Your task to perform on an android device: Is it going to rain tomorrow? Image 0: 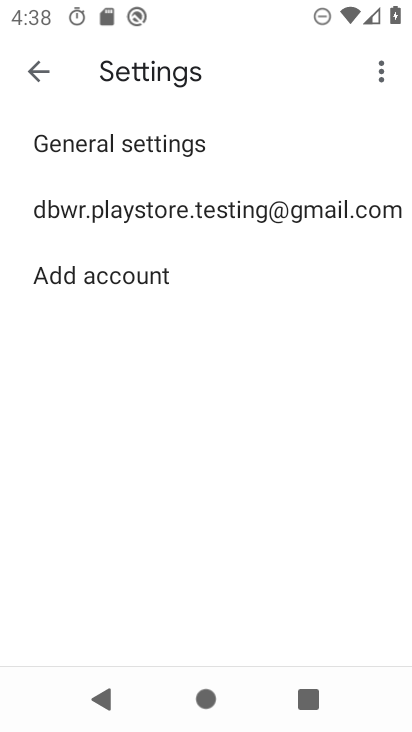
Step 0: press back button
Your task to perform on an android device: Is it going to rain tomorrow? Image 1: 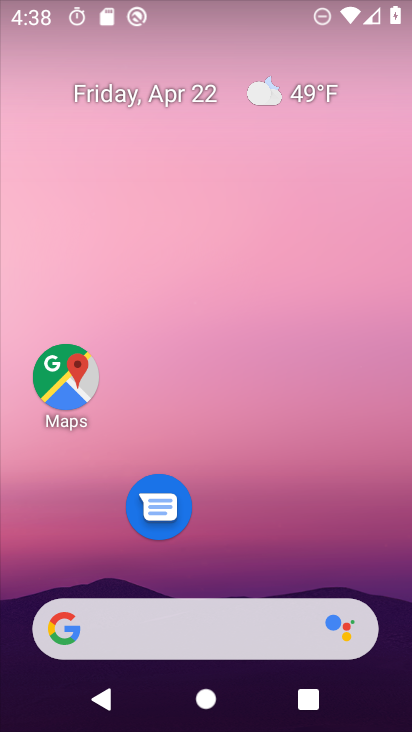
Step 1: click (271, 93)
Your task to perform on an android device: Is it going to rain tomorrow? Image 2: 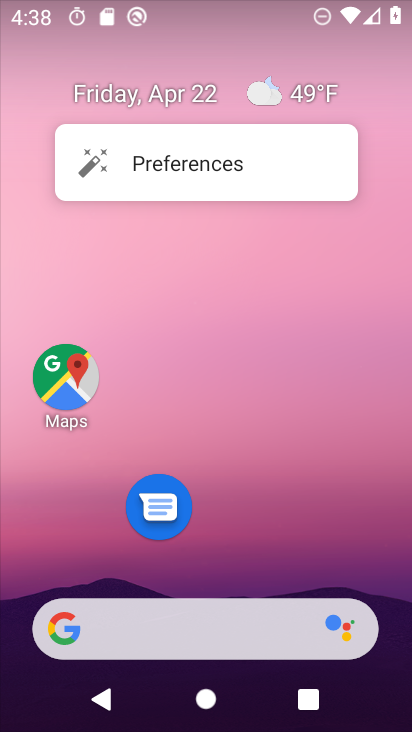
Step 2: click (266, 92)
Your task to perform on an android device: Is it going to rain tomorrow? Image 3: 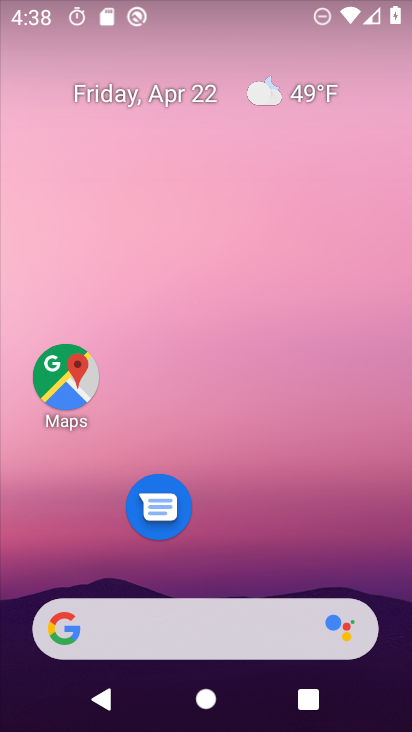
Step 3: click (266, 92)
Your task to perform on an android device: Is it going to rain tomorrow? Image 4: 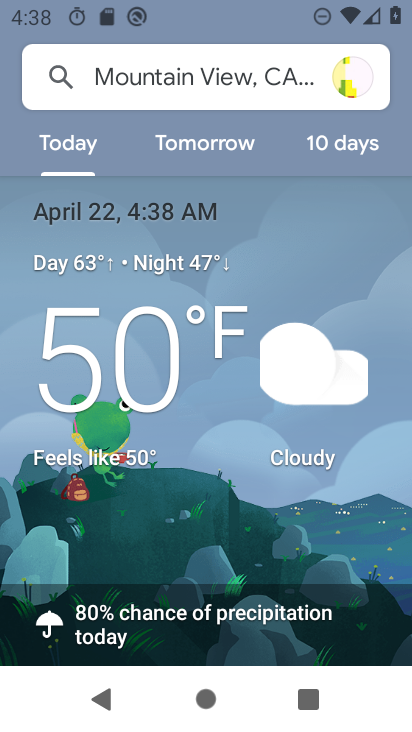
Step 4: click (192, 142)
Your task to perform on an android device: Is it going to rain tomorrow? Image 5: 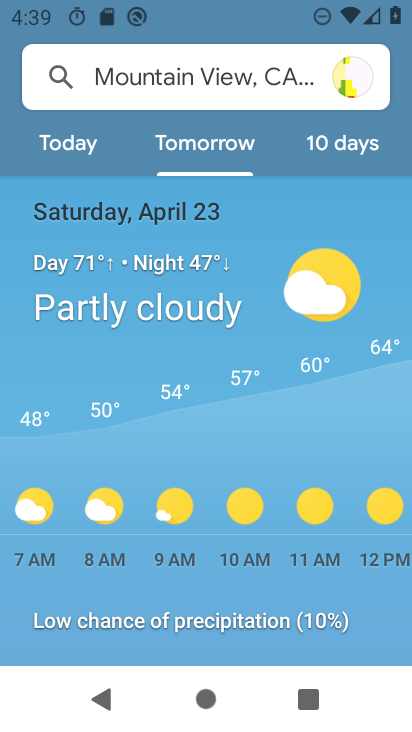
Step 5: task complete